Your task to perform on an android device: Show me productivity apps on the Play Store Image 0: 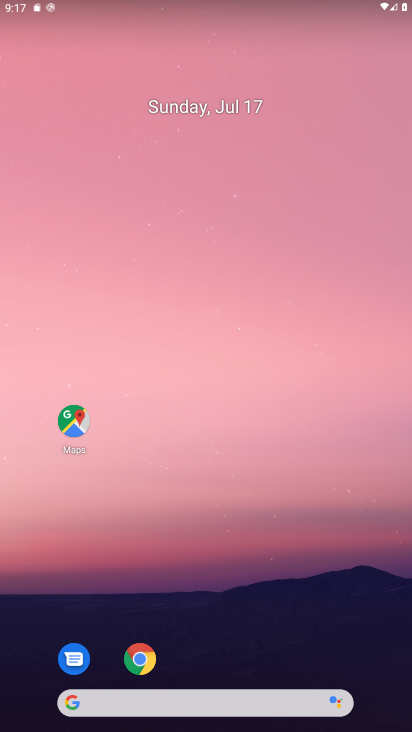
Step 0: drag from (240, 708) to (180, 200)
Your task to perform on an android device: Show me productivity apps on the Play Store Image 1: 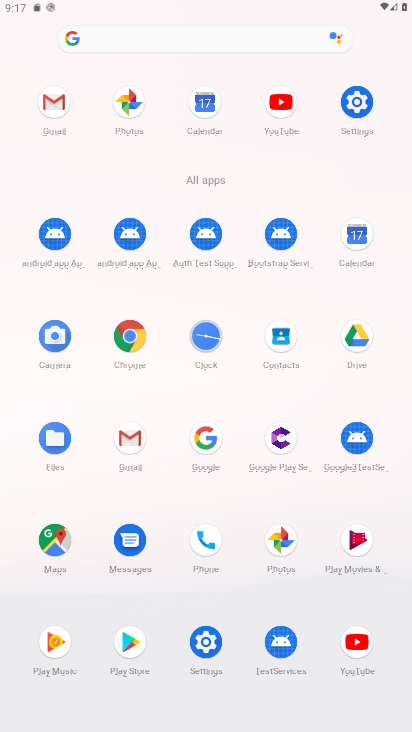
Step 1: click (126, 641)
Your task to perform on an android device: Show me productivity apps on the Play Store Image 2: 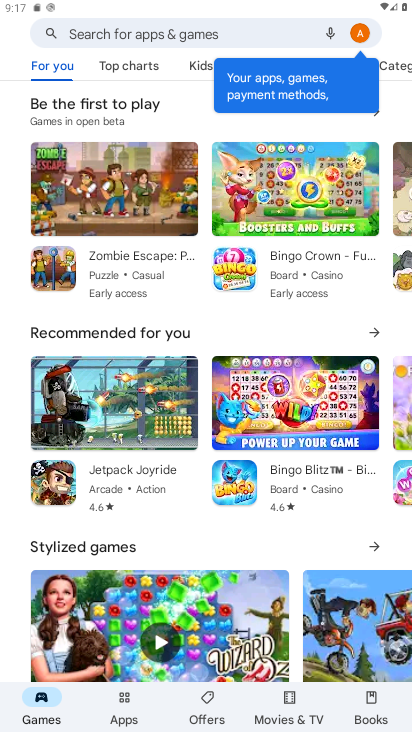
Step 2: click (111, 703)
Your task to perform on an android device: Show me productivity apps on the Play Store Image 3: 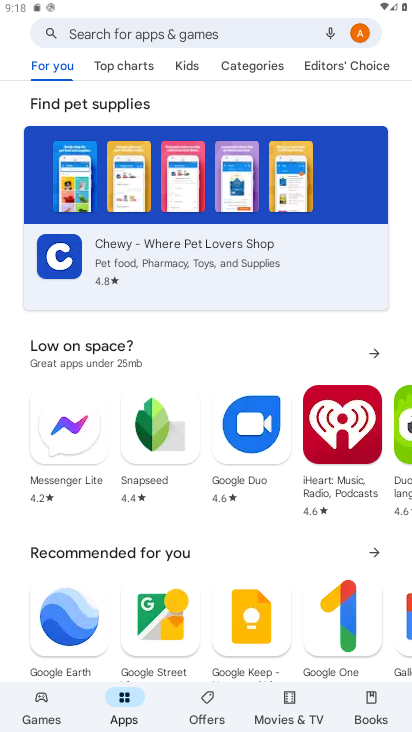
Step 3: click (257, 63)
Your task to perform on an android device: Show me productivity apps on the Play Store Image 4: 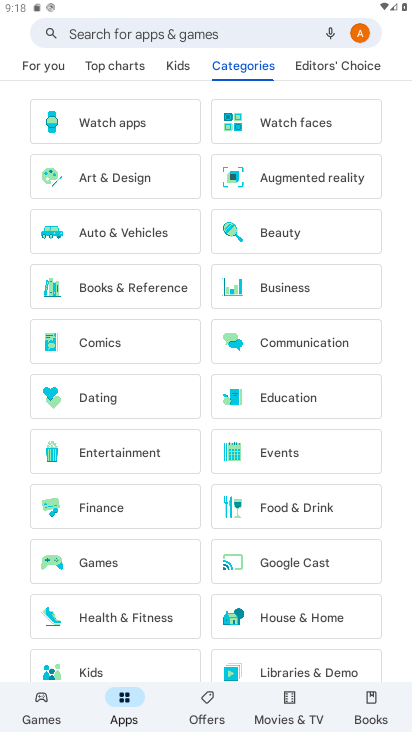
Step 4: drag from (191, 595) to (213, 283)
Your task to perform on an android device: Show me productivity apps on the Play Store Image 5: 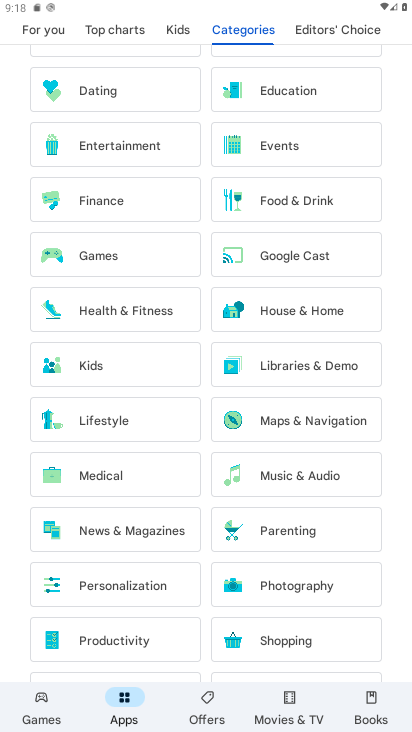
Step 5: click (142, 645)
Your task to perform on an android device: Show me productivity apps on the Play Store Image 6: 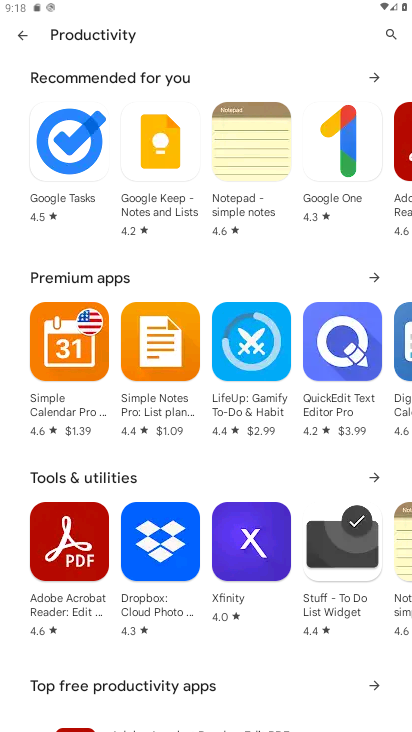
Step 6: task complete